Your task to perform on an android device: Open battery settings Image 0: 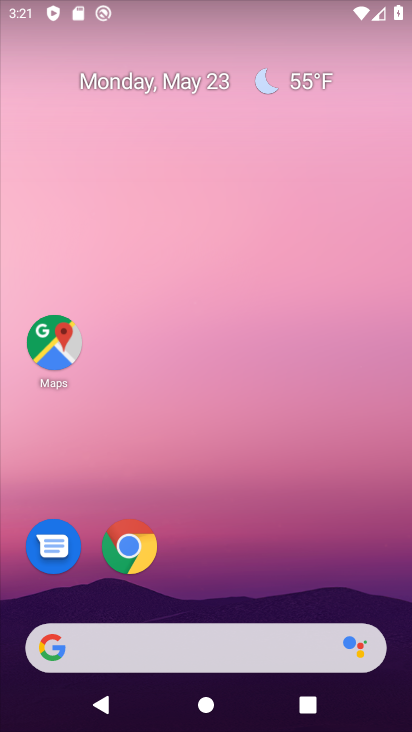
Step 0: drag from (205, 599) to (204, 122)
Your task to perform on an android device: Open battery settings Image 1: 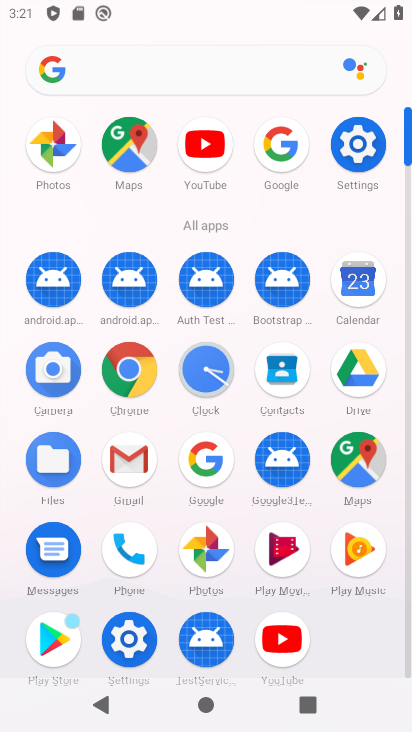
Step 1: click (368, 144)
Your task to perform on an android device: Open battery settings Image 2: 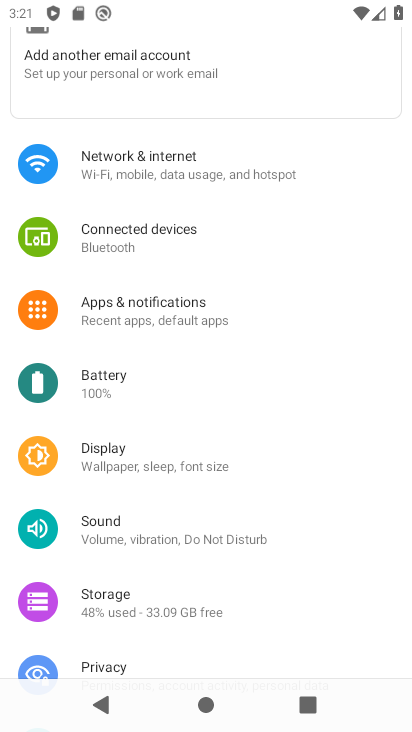
Step 2: click (65, 384)
Your task to perform on an android device: Open battery settings Image 3: 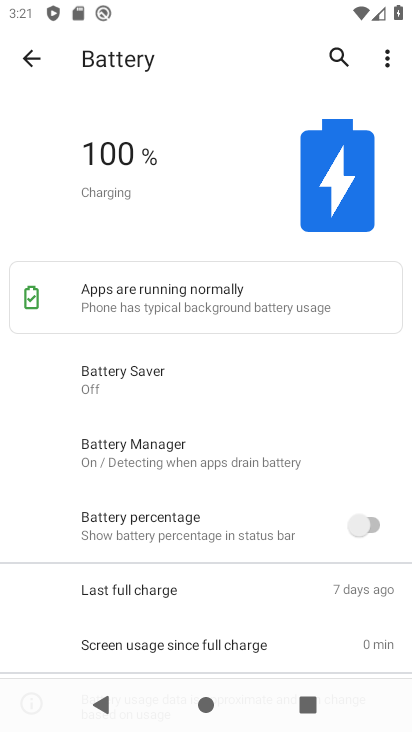
Step 3: task complete